Your task to perform on an android device: read, delete, or share a saved page in the chrome app Image 0: 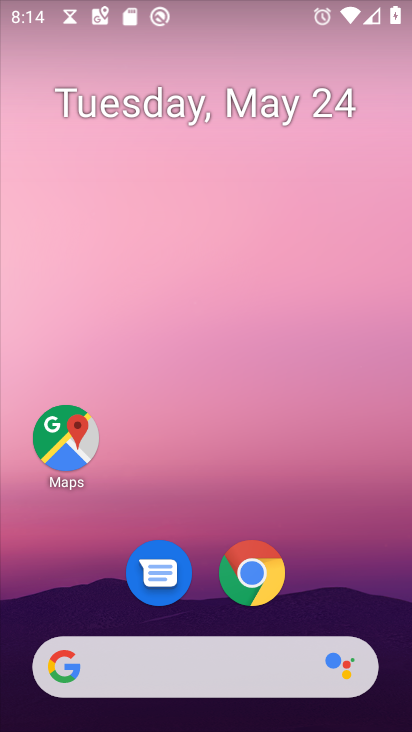
Step 0: drag from (345, 626) to (300, 111)
Your task to perform on an android device: read, delete, or share a saved page in the chrome app Image 1: 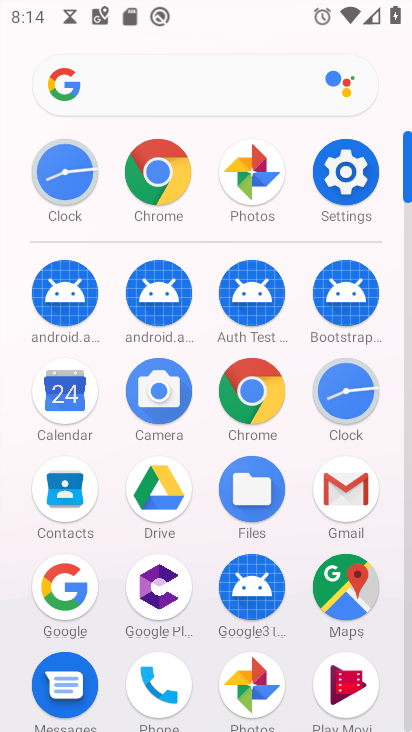
Step 1: click (177, 175)
Your task to perform on an android device: read, delete, or share a saved page in the chrome app Image 2: 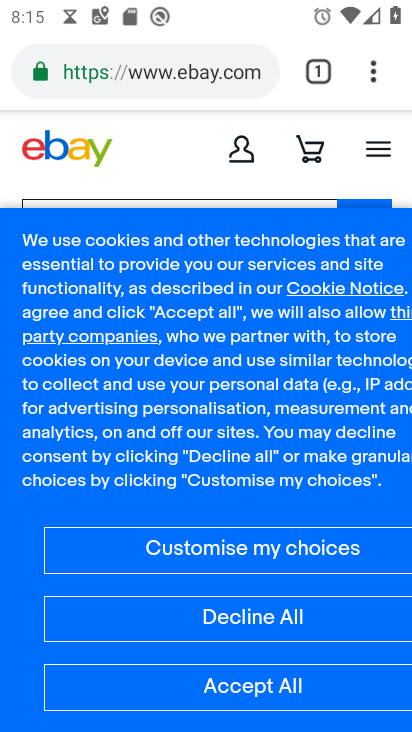
Step 2: task complete